Your task to perform on an android device: Open accessibility settings Image 0: 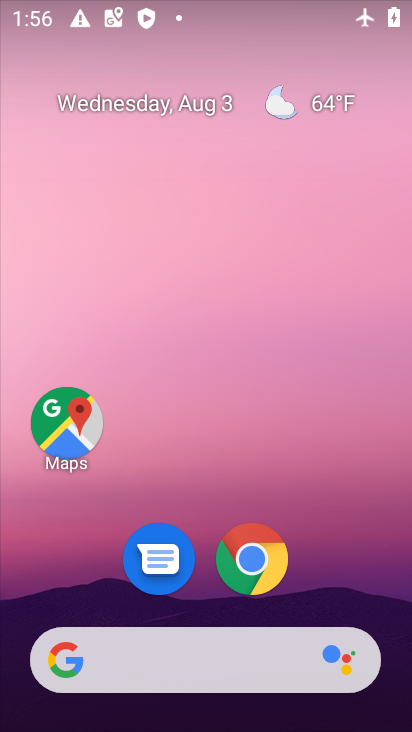
Step 0: drag from (205, 582) to (198, 145)
Your task to perform on an android device: Open accessibility settings Image 1: 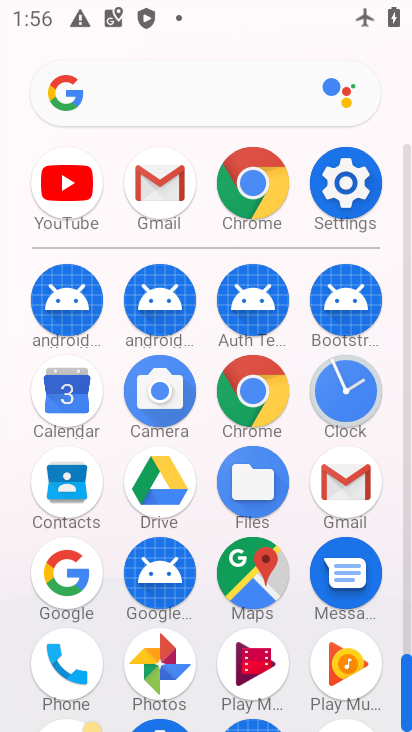
Step 1: click (353, 183)
Your task to perform on an android device: Open accessibility settings Image 2: 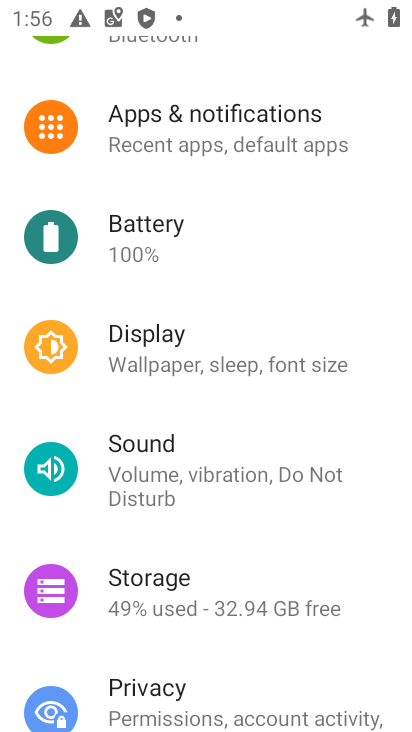
Step 2: drag from (148, 631) to (189, 210)
Your task to perform on an android device: Open accessibility settings Image 3: 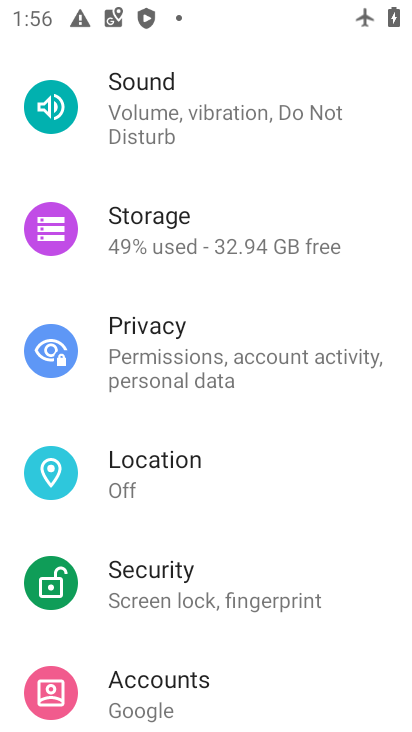
Step 3: drag from (153, 640) to (189, 202)
Your task to perform on an android device: Open accessibility settings Image 4: 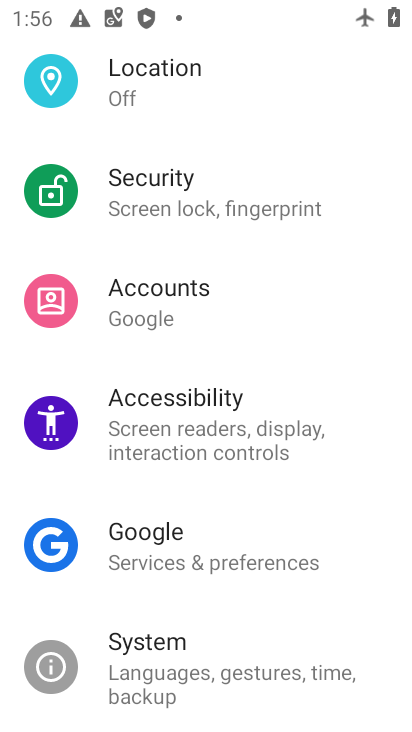
Step 4: click (196, 418)
Your task to perform on an android device: Open accessibility settings Image 5: 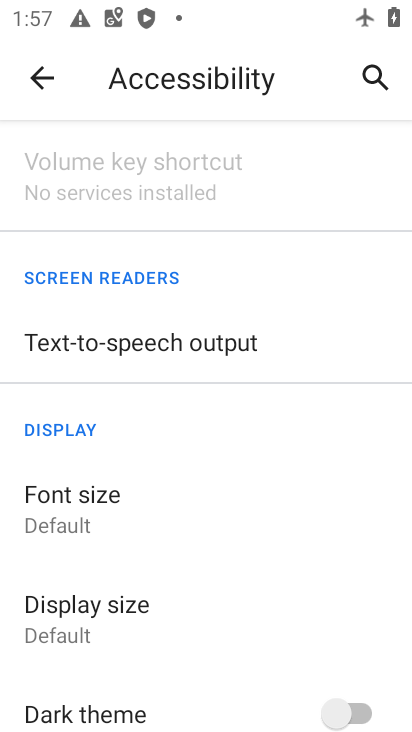
Step 5: task complete